Your task to perform on an android device: Go to ESPN.com Image 0: 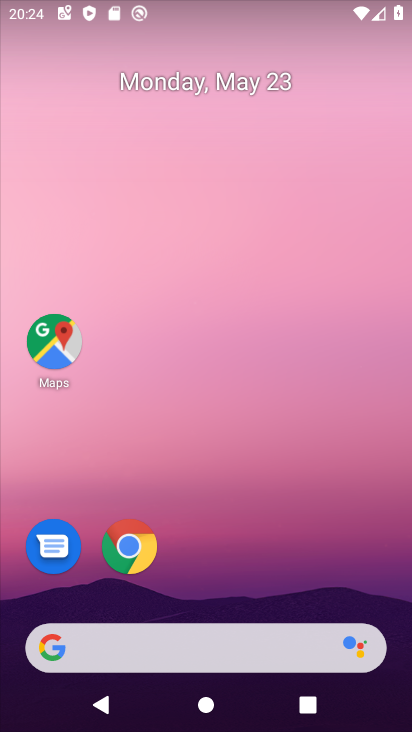
Step 0: drag from (390, 590) to (376, 209)
Your task to perform on an android device: Go to ESPN.com Image 1: 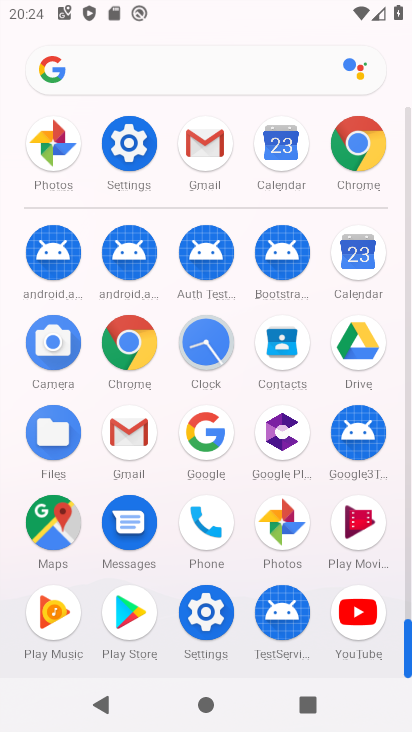
Step 1: click (148, 349)
Your task to perform on an android device: Go to ESPN.com Image 2: 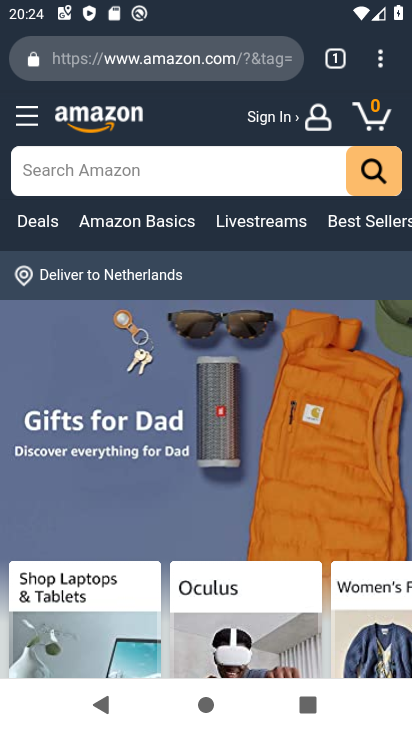
Step 2: press back button
Your task to perform on an android device: Go to ESPN.com Image 3: 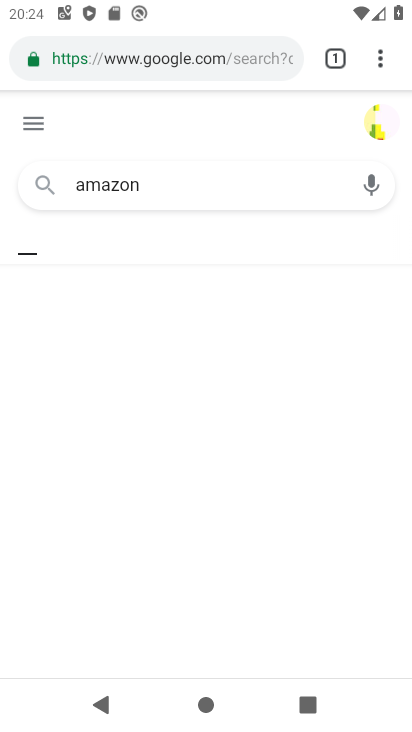
Step 3: press back button
Your task to perform on an android device: Go to ESPN.com Image 4: 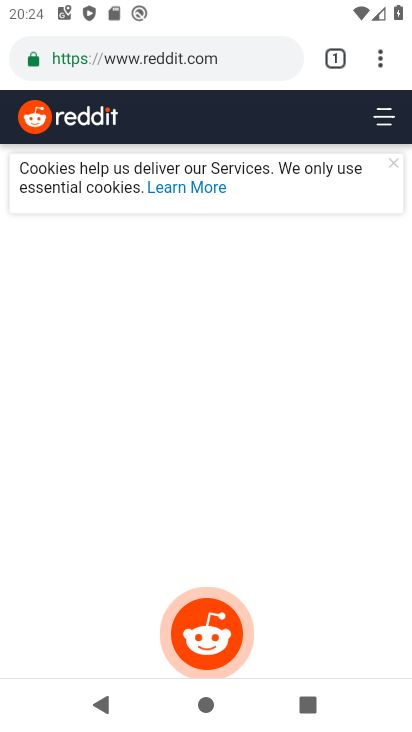
Step 4: press back button
Your task to perform on an android device: Go to ESPN.com Image 5: 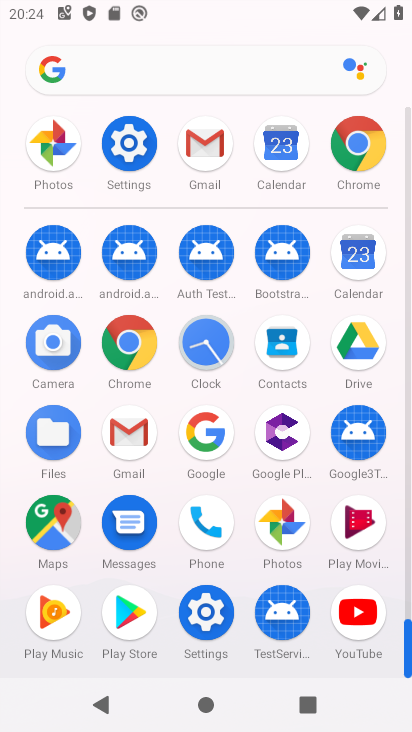
Step 5: click (141, 357)
Your task to perform on an android device: Go to ESPN.com Image 6: 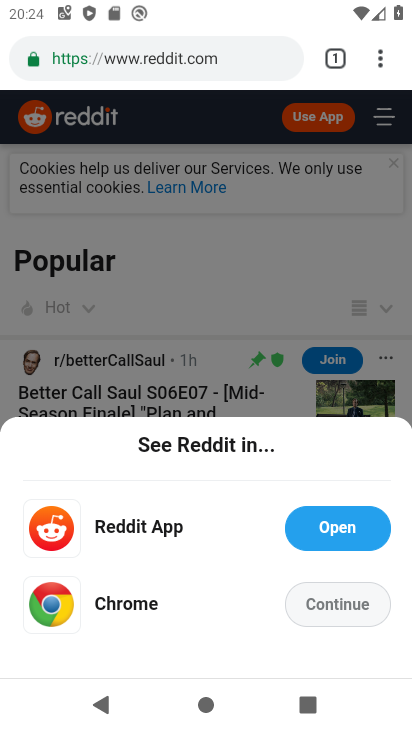
Step 6: click (229, 58)
Your task to perform on an android device: Go to ESPN.com Image 7: 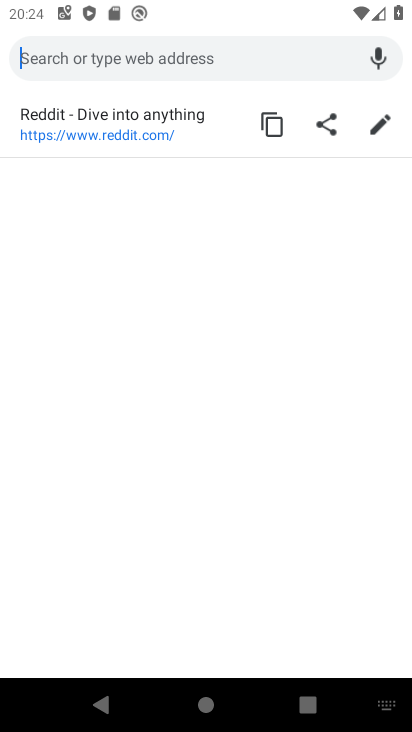
Step 7: type "espn.com"
Your task to perform on an android device: Go to ESPN.com Image 8: 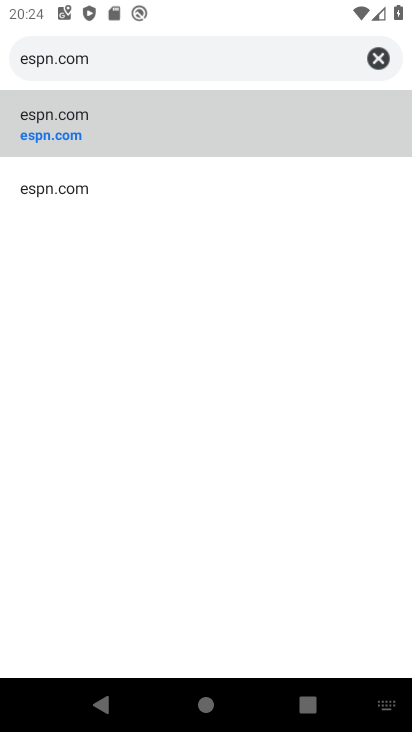
Step 8: click (227, 117)
Your task to perform on an android device: Go to ESPN.com Image 9: 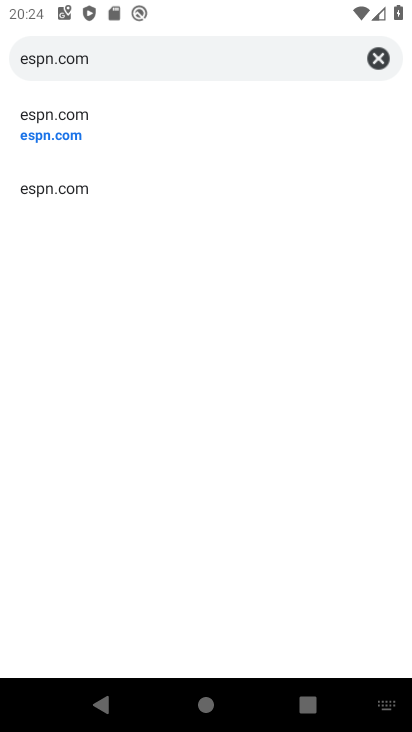
Step 9: click (97, 143)
Your task to perform on an android device: Go to ESPN.com Image 10: 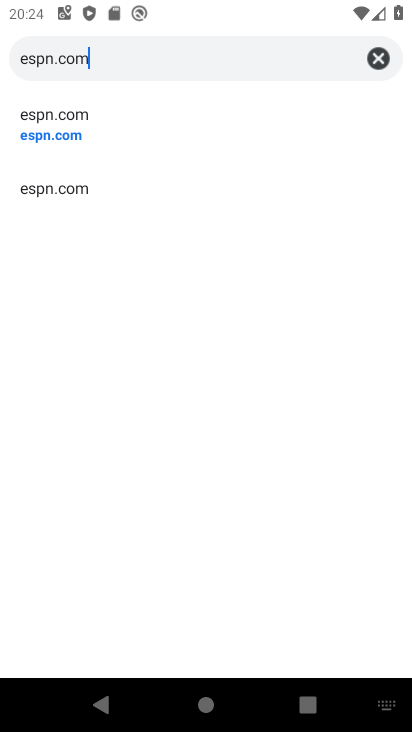
Step 10: click (67, 192)
Your task to perform on an android device: Go to ESPN.com Image 11: 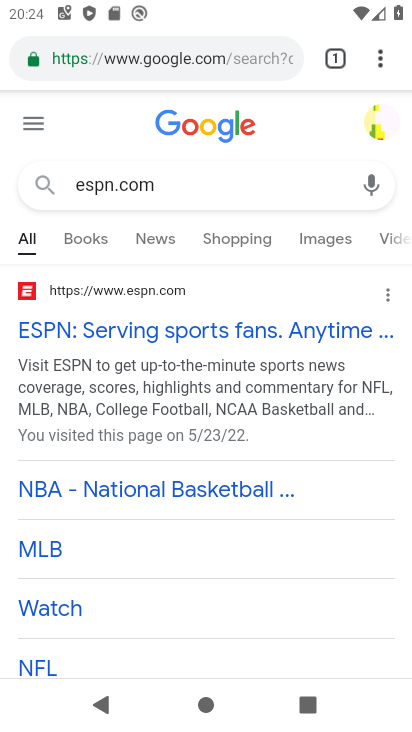
Step 11: task complete